Your task to perform on an android device: What's on my calendar tomorrow? Image 0: 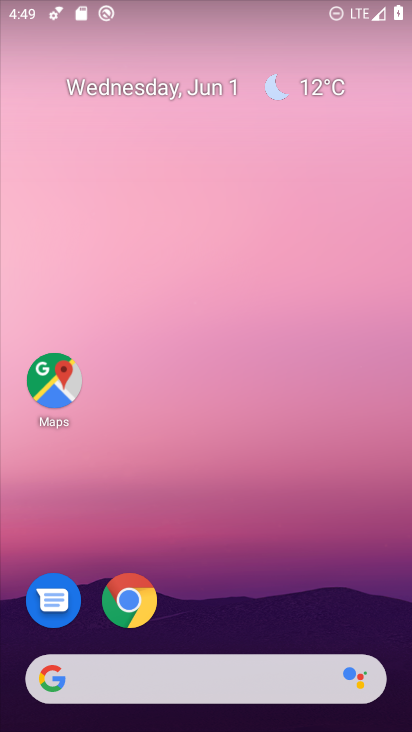
Step 0: drag from (343, 585) to (249, 56)
Your task to perform on an android device: What's on my calendar tomorrow? Image 1: 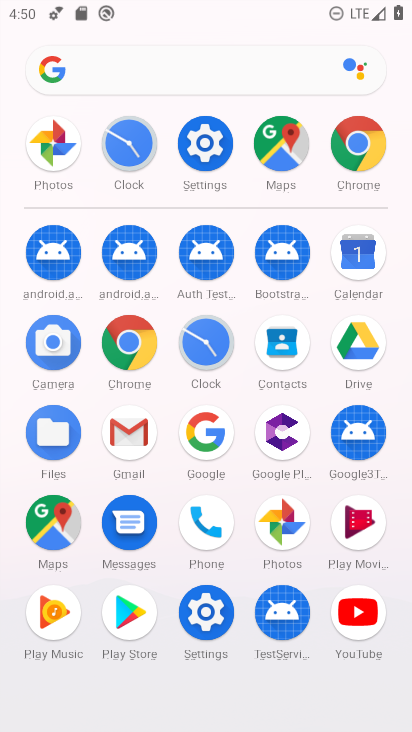
Step 1: click (362, 252)
Your task to perform on an android device: What's on my calendar tomorrow? Image 2: 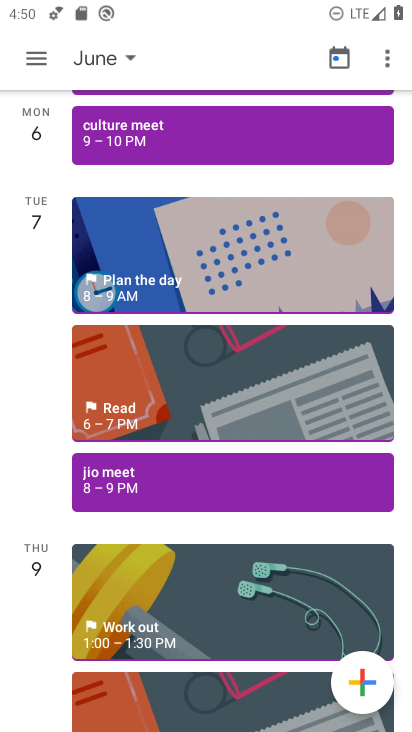
Step 2: click (30, 50)
Your task to perform on an android device: What's on my calendar tomorrow? Image 3: 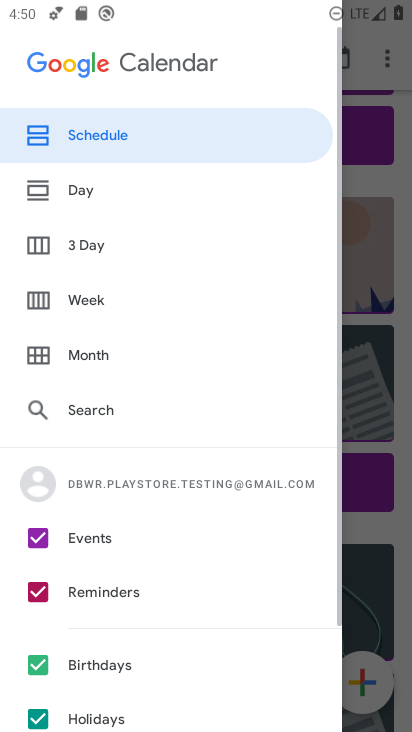
Step 3: click (81, 185)
Your task to perform on an android device: What's on my calendar tomorrow? Image 4: 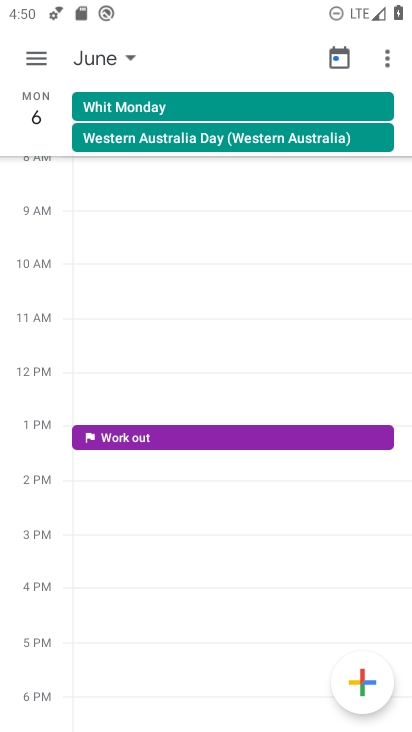
Step 4: click (125, 54)
Your task to perform on an android device: What's on my calendar tomorrow? Image 5: 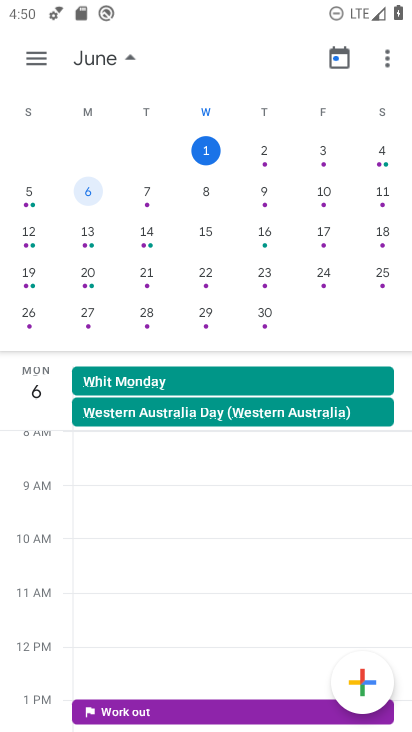
Step 5: click (265, 147)
Your task to perform on an android device: What's on my calendar tomorrow? Image 6: 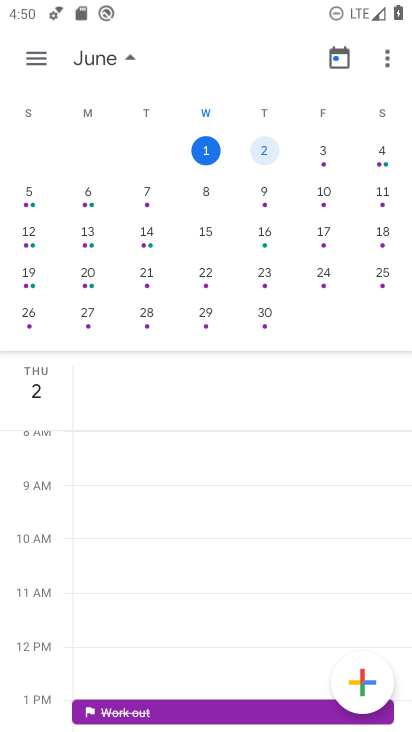
Step 6: task complete